Your task to perform on an android device: Is it going to rain tomorrow? Image 0: 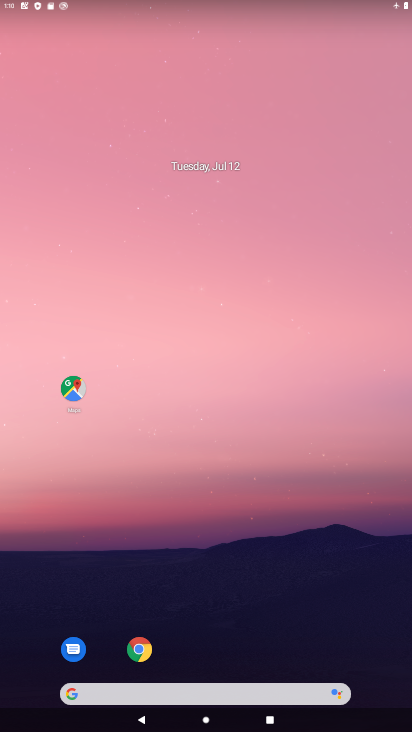
Step 0: drag from (224, 618) to (212, 215)
Your task to perform on an android device: Is it going to rain tomorrow? Image 1: 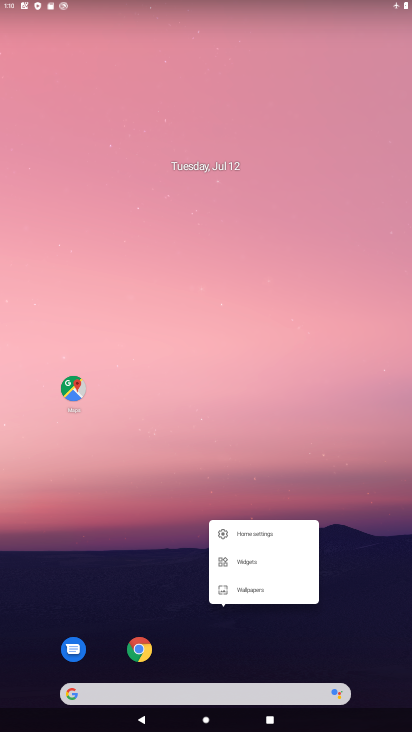
Step 1: click (193, 262)
Your task to perform on an android device: Is it going to rain tomorrow? Image 2: 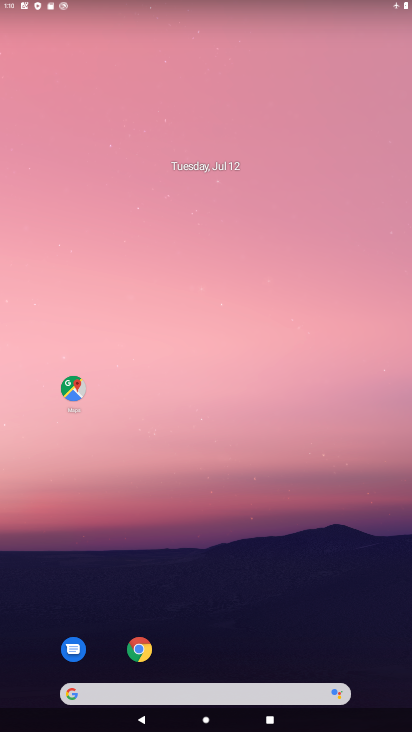
Step 2: click (152, 651)
Your task to perform on an android device: Is it going to rain tomorrow? Image 3: 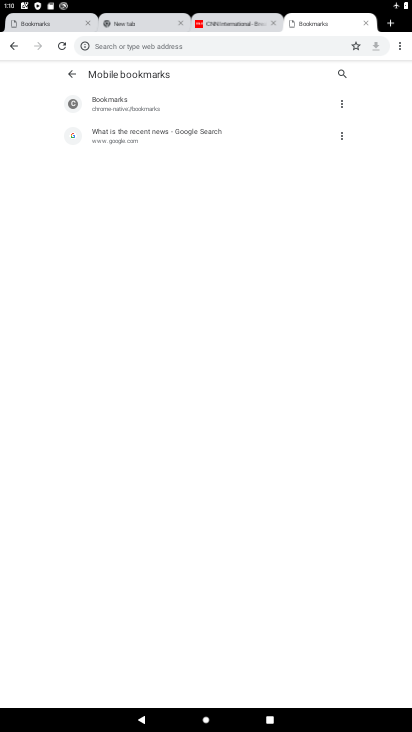
Step 3: click (233, 51)
Your task to perform on an android device: Is it going to rain tomorrow? Image 4: 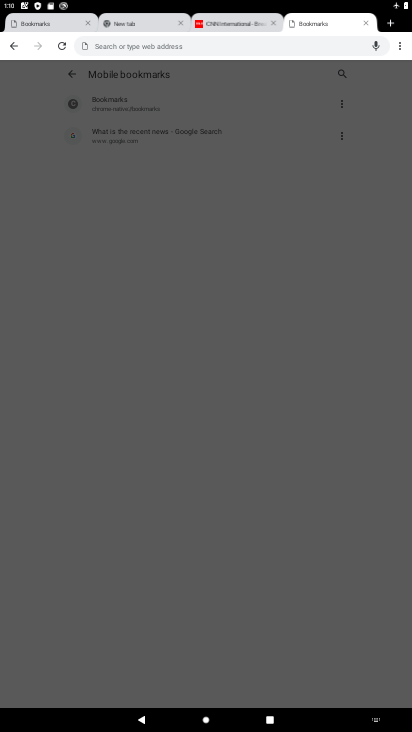
Step 4: press home button
Your task to perform on an android device: Is it going to rain tomorrow? Image 5: 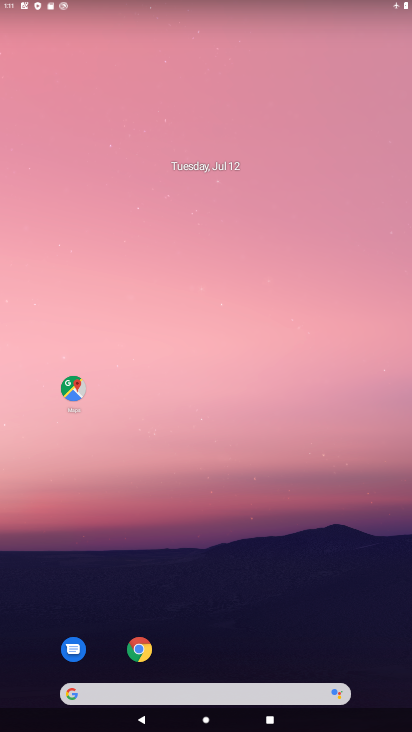
Step 5: click (231, 697)
Your task to perform on an android device: Is it going to rain tomorrow? Image 6: 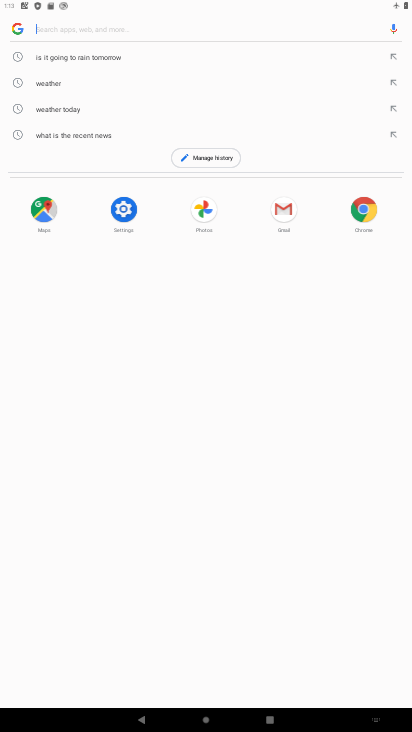
Step 6: click (151, 54)
Your task to perform on an android device: Is it going to rain tomorrow? Image 7: 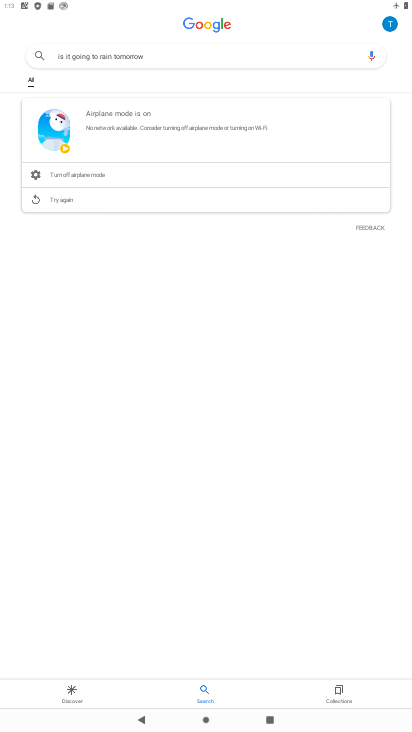
Step 7: task complete